Your task to perform on an android device: Go to battery settings Image 0: 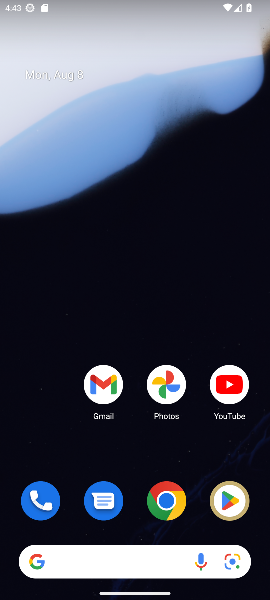
Step 0: drag from (9, 584) to (144, 172)
Your task to perform on an android device: Go to battery settings Image 1: 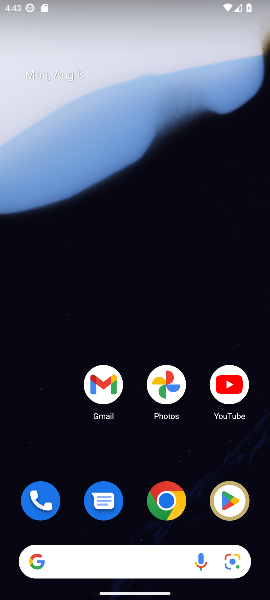
Step 1: click (21, 580)
Your task to perform on an android device: Go to battery settings Image 2: 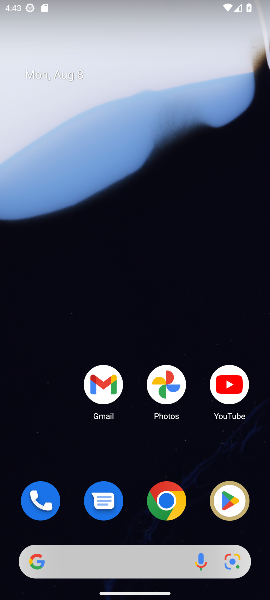
Step 2: drag from (21, 580) to (93, 280)
Your task to perform on an android device: Go to battery settings Image 3: 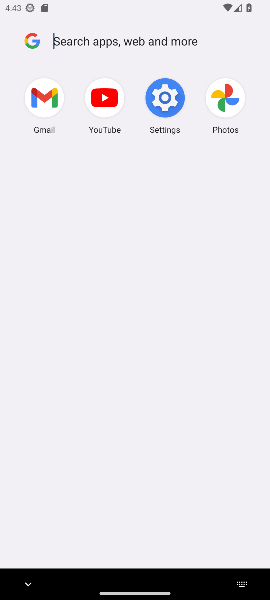
Step 3: press home button
Your task to perform on an android device: Go to battery settings Image 4: 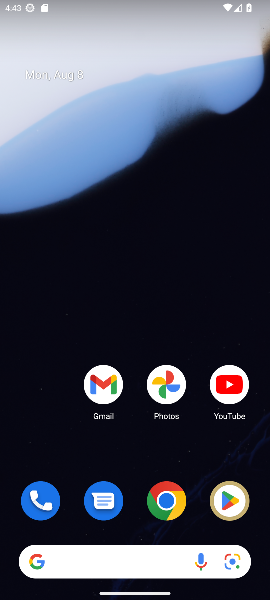
Step 4: drag from (39, 412) to (136, 121)
Your task to perform on an android device: Go to battery settings Image 5: 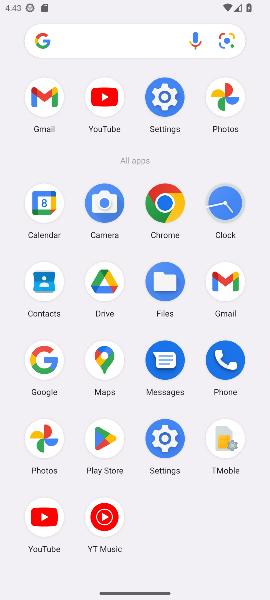
Step 5: click (170, 102)
Your task to perform on an android device: Go to battery settings Image 6: 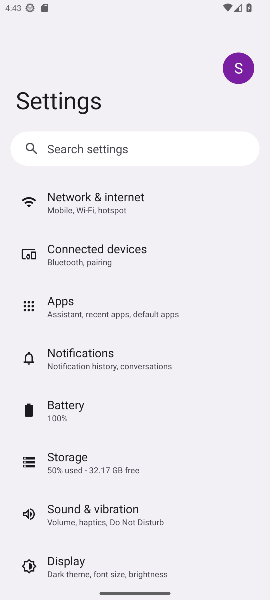
Step 6: click (46, 402)
Your task to perform on an android device: Go to battery settings Image 7: 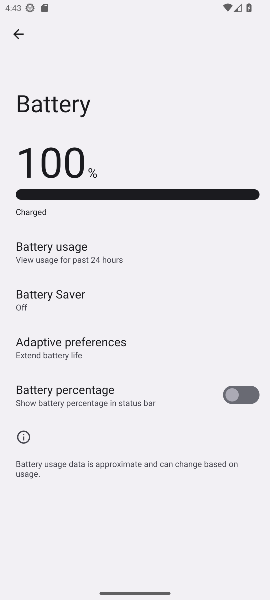
Step 7: task complete